Your task to perform on an android device: Search for Mexican restaurants on Maps Image 0: 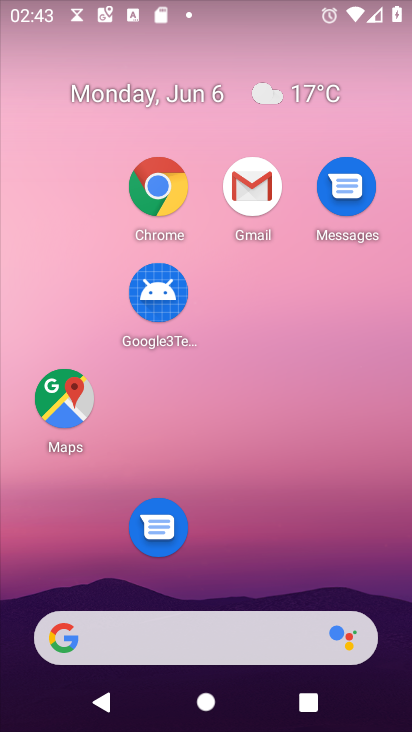
Step 0: click (32, 408)
Your task to perform on an android device: Search for Mexican restaurants on Maps Image 1: 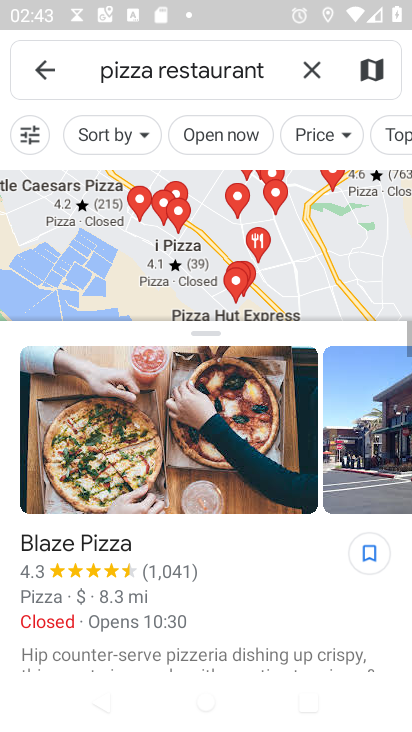
Step 1: click (302, 71)
Your task to perform on an android device: Search for Mexican restaurants on Maps Image 2: 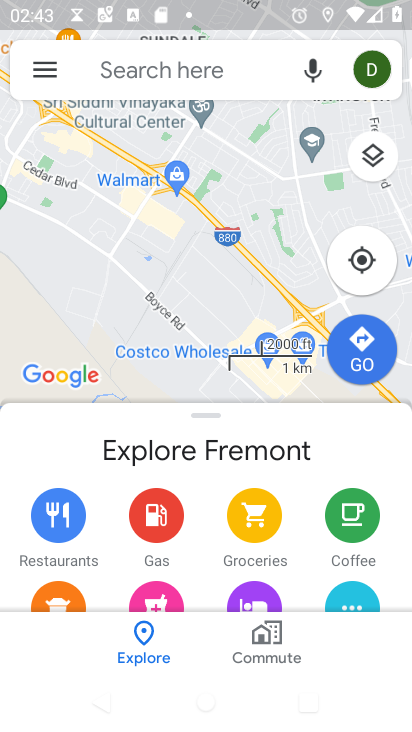
Step 2: click (215, 52)
Your task to perform on an android device: Search for Mexican restaurants on Maps Image 3: 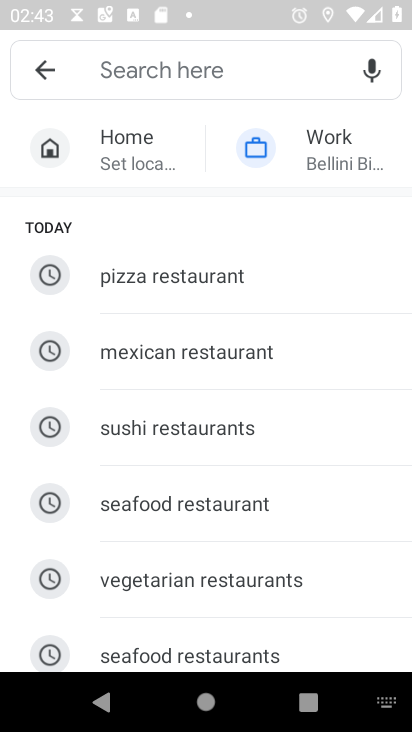
Step 3: click (189, 352)
Your task to perform on an android device: Search for Mexican restaurants on Maps Image 4: 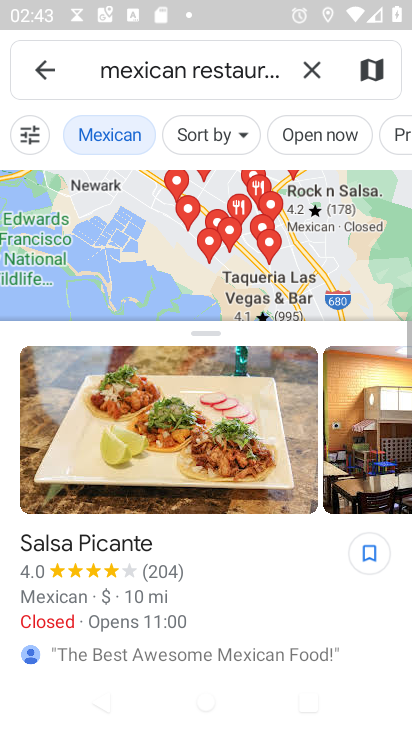
Step 4: task complete